Your task to perform on an android device: refresh tabs in the chrome app Image 0: 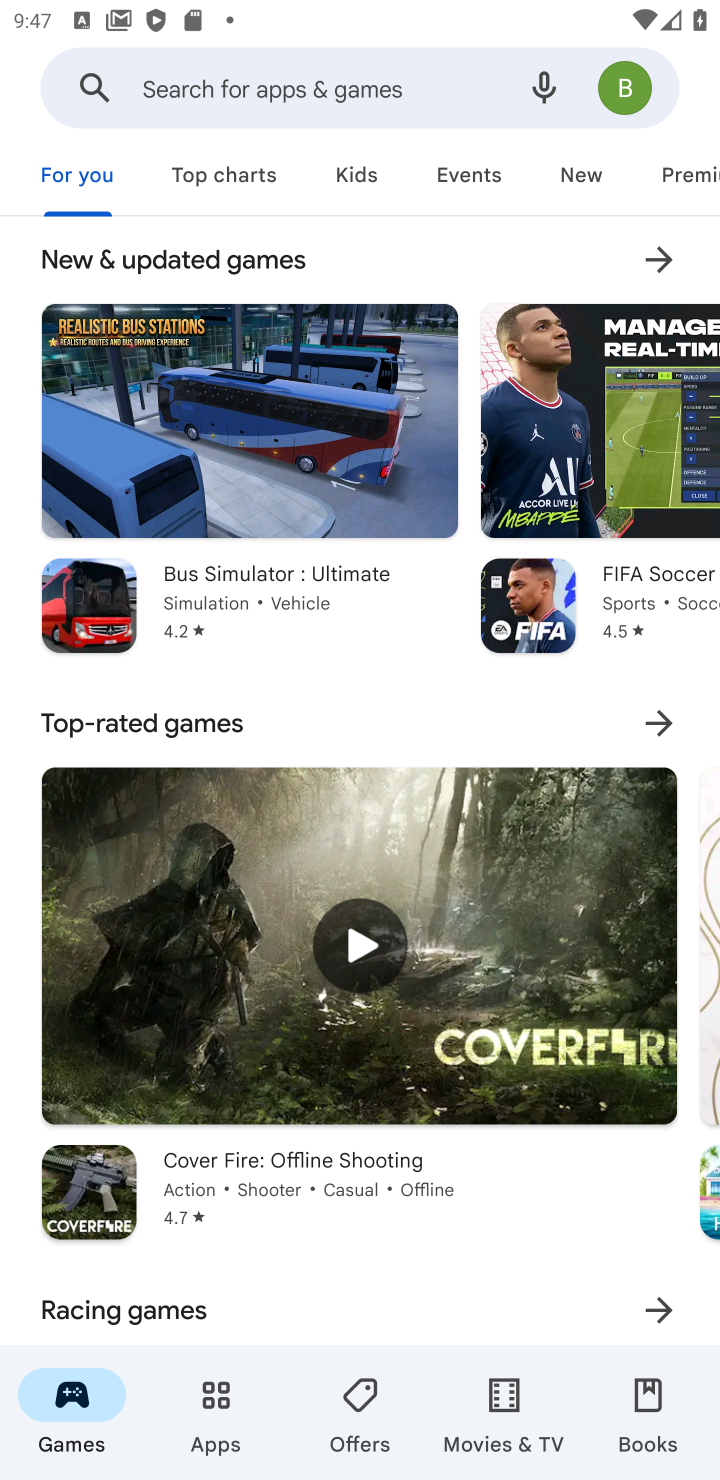
Step 0: press home button
Your task to perform on an android device: refresh tabs in the chrome app Image 1: 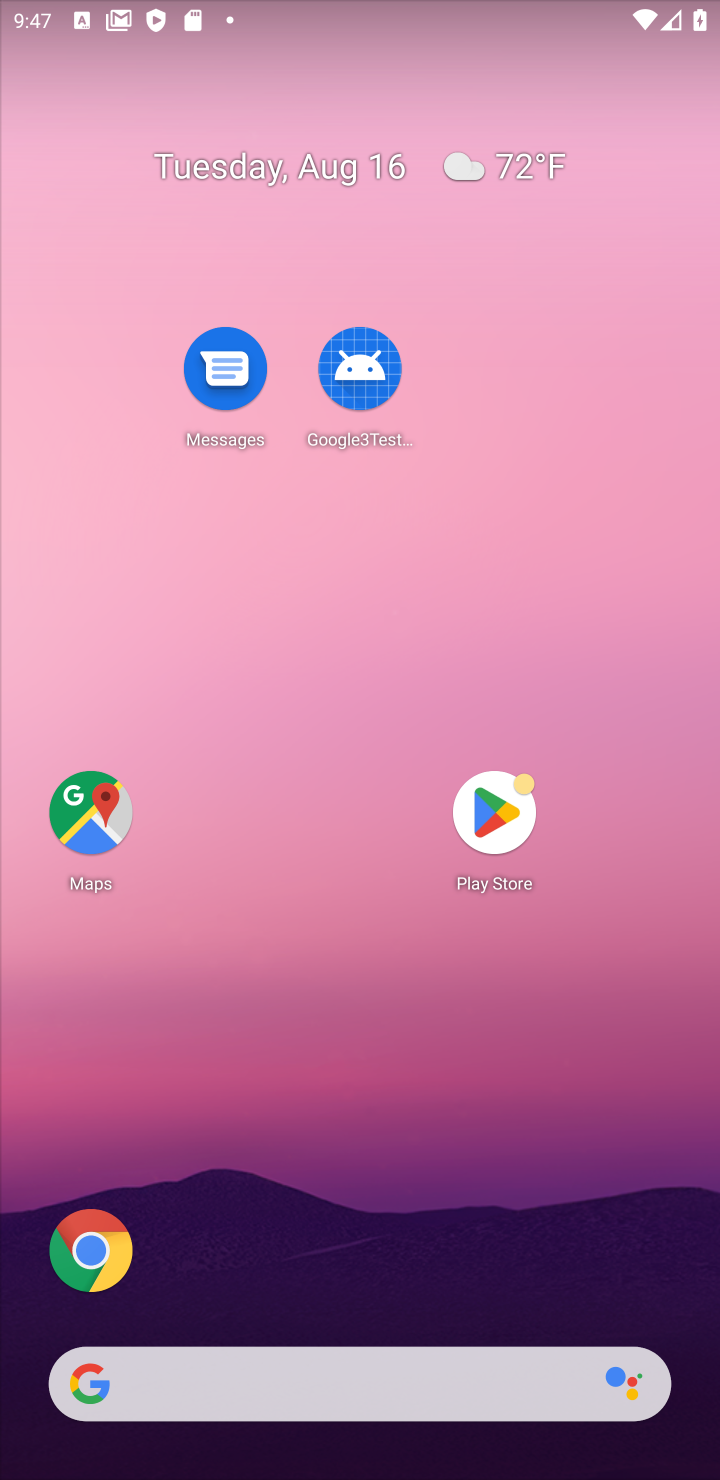
Step 1: click (84, 1253)
Your task to perform on an android device: refresh tabs in the chrome app Image 2: 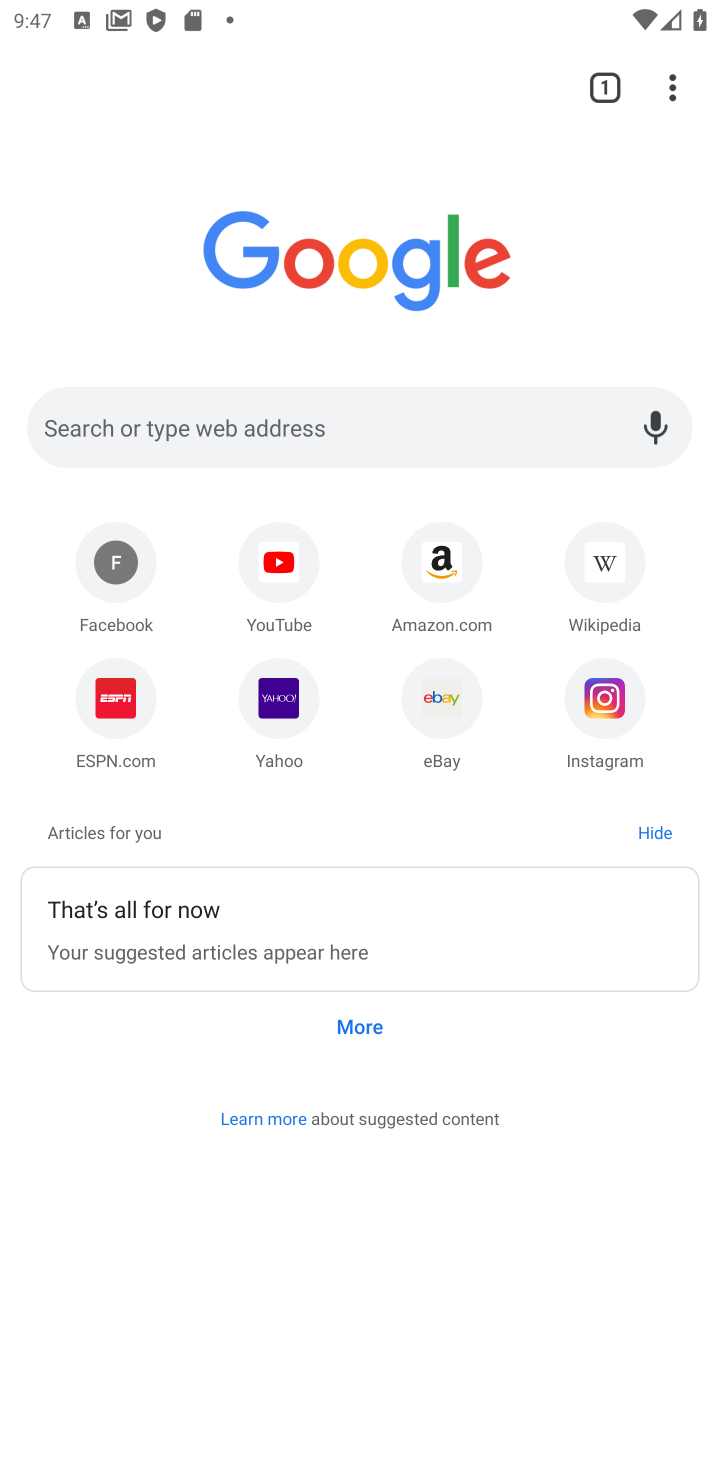
Step 2: click (683, 82)
Your task to perform on an android device: refresh tabs in the chrome app Image 3: 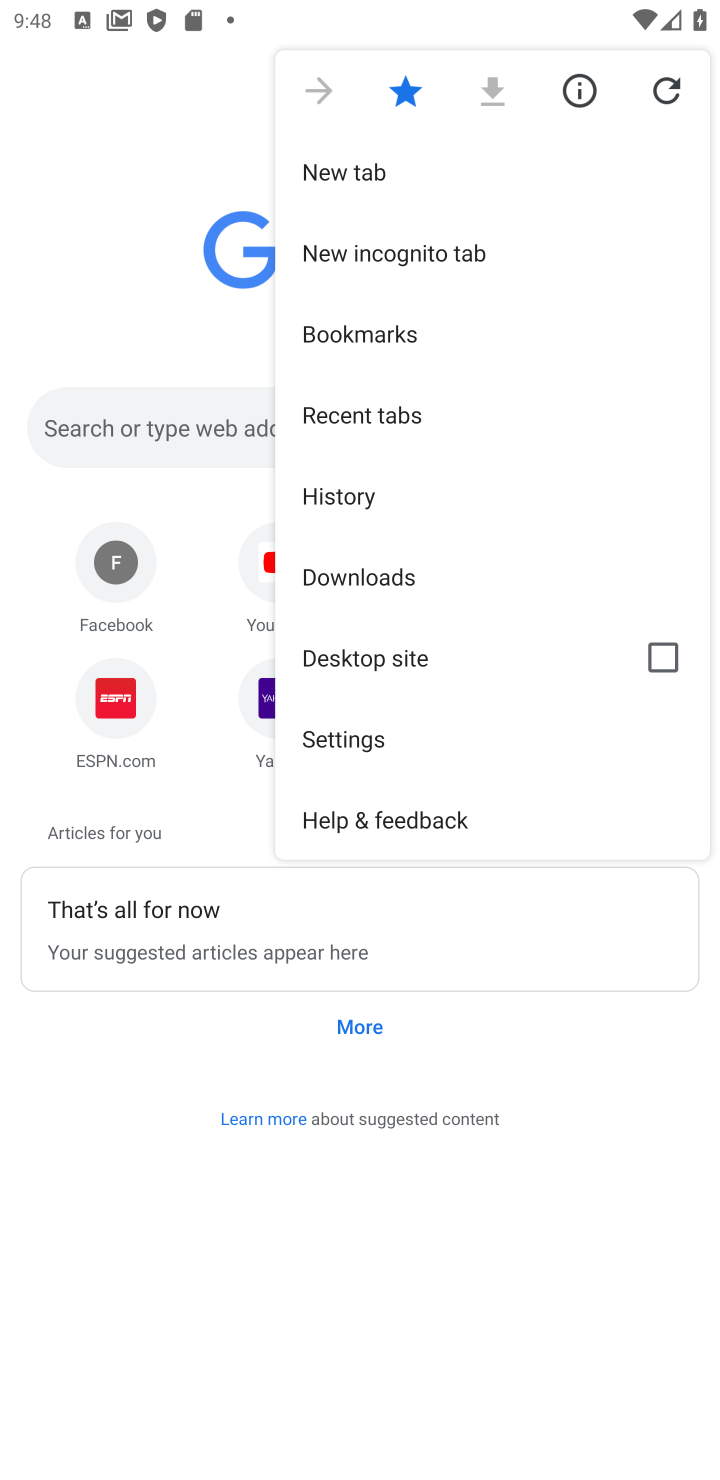
Step 3: click (670, 83)
Your task to perform on an android device: refresh tabs in the chrome app Image 4: 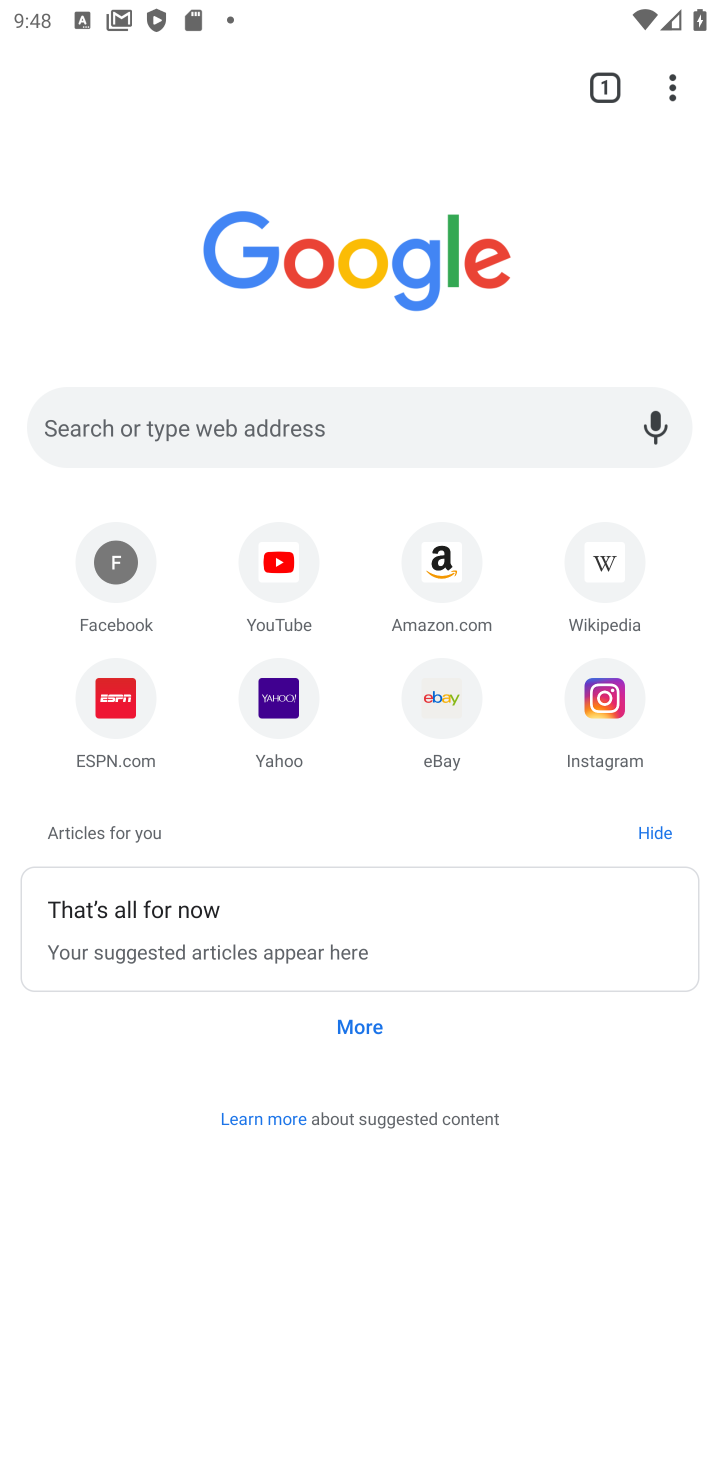
Step 4: task complete